Your task to perform on an android device: move an email to a new category in the gmail app Image 0: 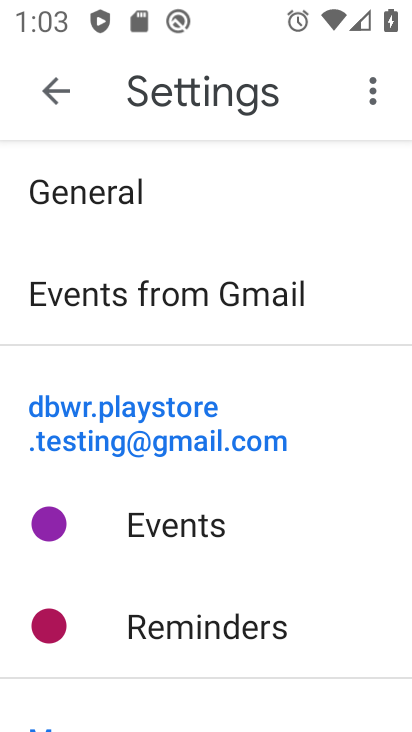
Step 0: press home button
Your task to perform on an android device: move an email to a new category in the gmail app Image 1: 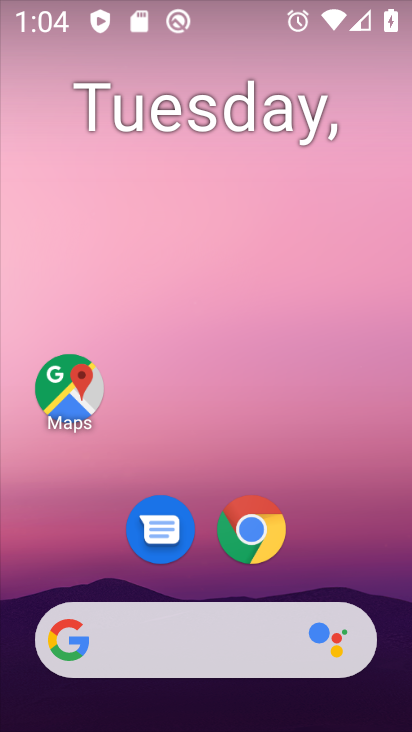
Step 1: drag from (194, 649) to (239, 91)
Your task to perform on an android device: move an email to a new category in the gmail app Image 2: 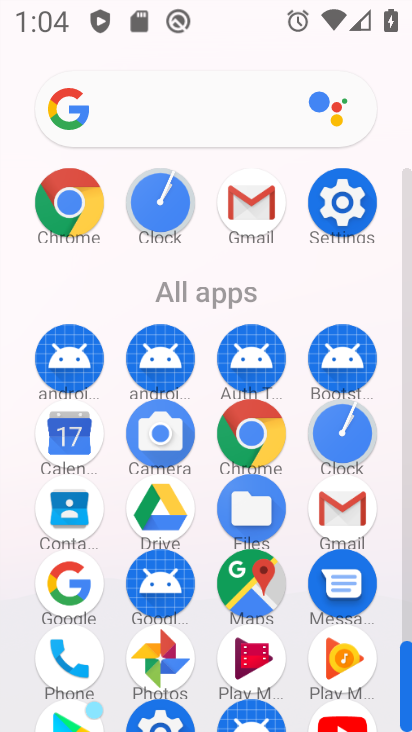
Step 2: click (330, 517)
Your task to perform on an android device: move an email to a new category in the gmail app Image 3: 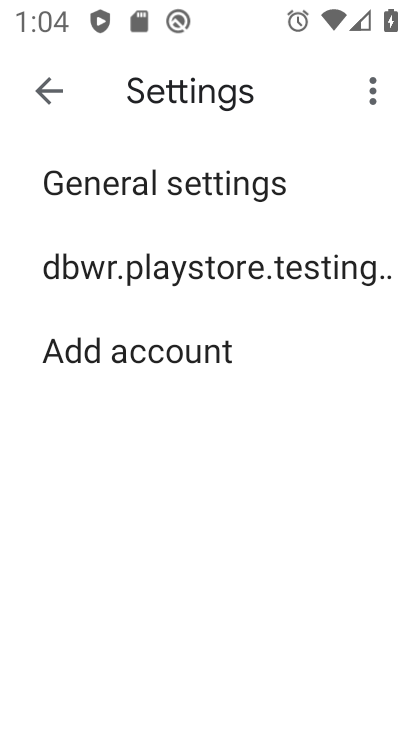
Step 3: click (58, 90)
Your task to perform on an android device: move an email to a new category in the gmail app Image 4: 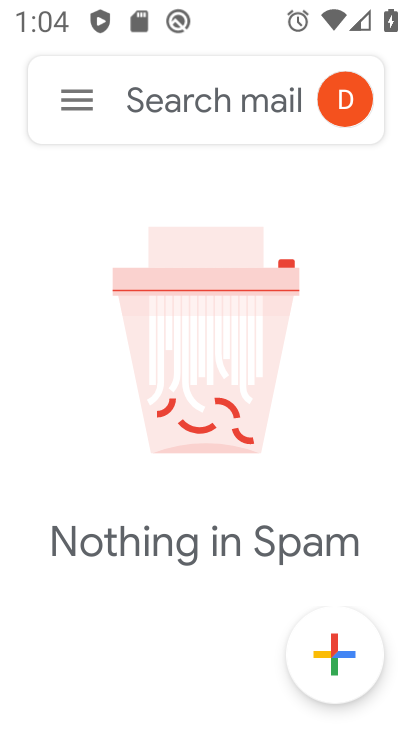
Step 4: click (73, 101)
Your task to perform on an android device: move an email to a new category in the gmail app Image 5: 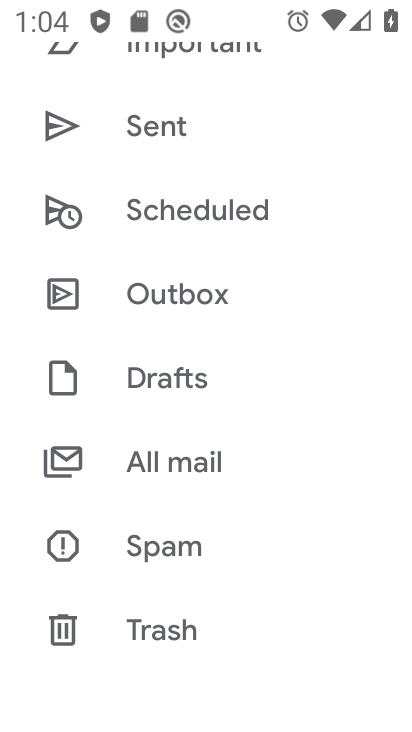
Step 5: click (176, 461)
Your task to perform on an android device: move an email to a new category in the gmail app Image 6: 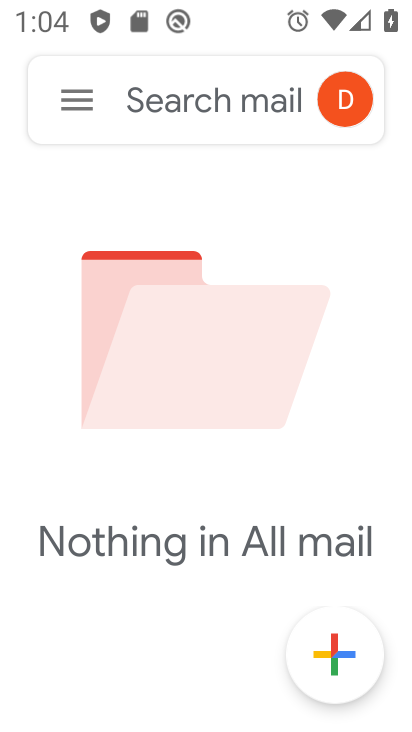
Step 6: task complete